Your task to perform on an android device: add a label to a message in the gmail app Image 0: 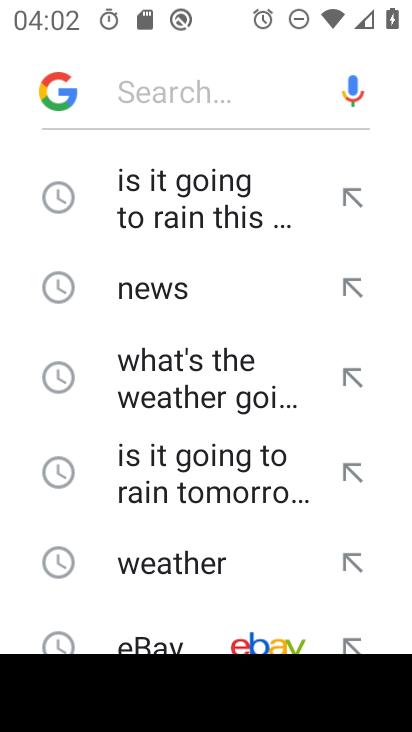
Step 0: press home button
Your task to perform on an android device: add a label to a message in the gmail app Image 1: 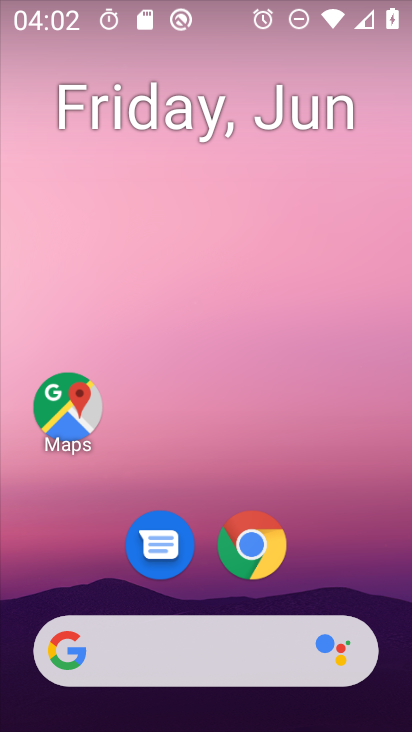
Step 1: drag from (350, 565) to (310, 9)
Your task to perform on an android device: add a label to a message in the gmail app Image 2: 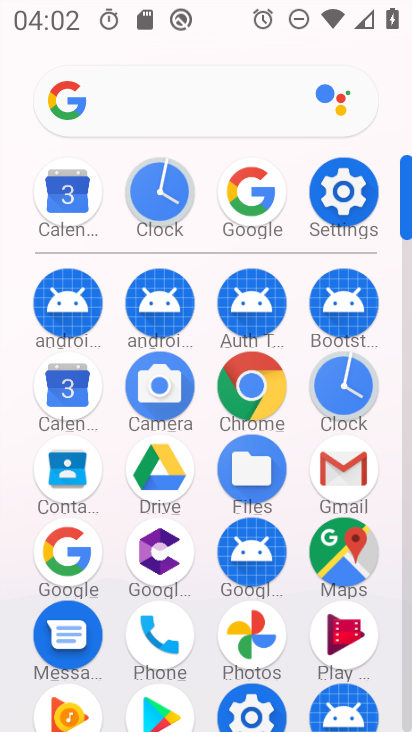
Step 2: click (337, 476)
Your task to perform on an android device: add a label to a message in the gmail app Image 3: 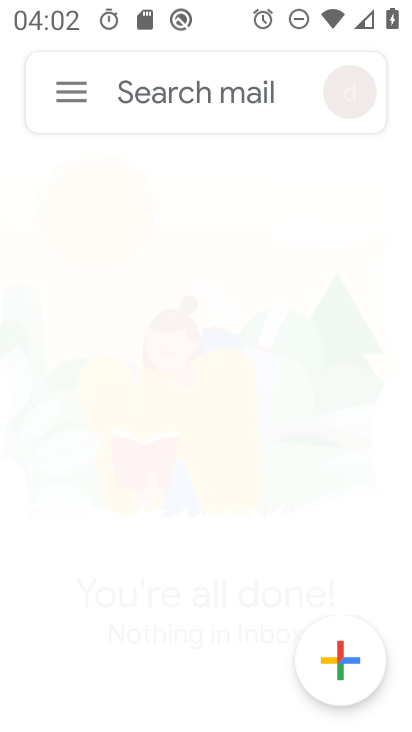
Step 3: click (54, 103)
Your task to perform on an android device: add a label to a message in the gmail app Image 4: 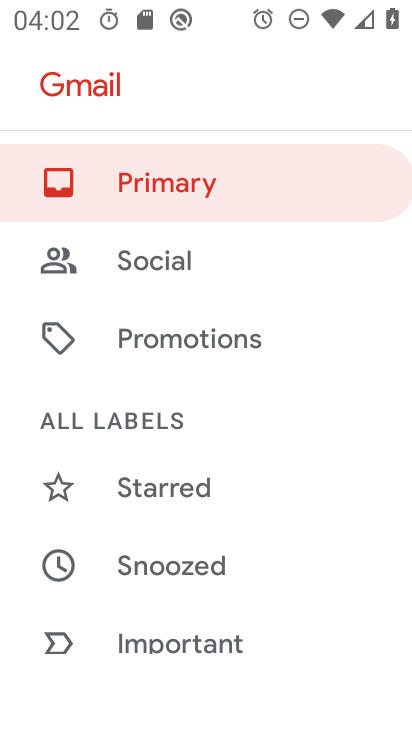
Step 4: drag from (154, 613) to (158, 74)
Your task to perform on an android device: add a label to a message in the gmail app Image 5: 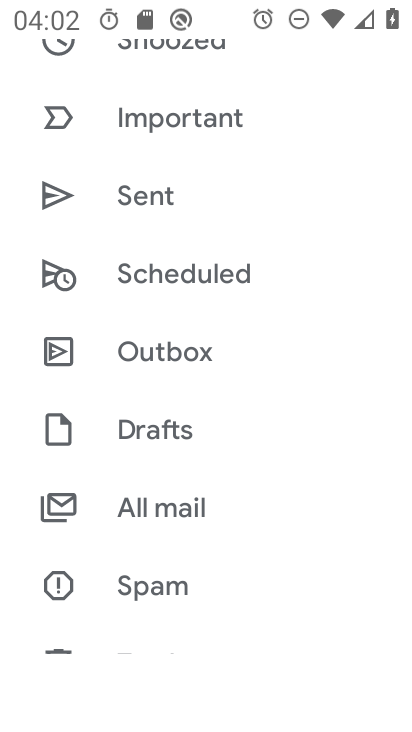
Step 5: click (166, 520)
Your task to perform on an android device: add a label to a message in the gmail app Image 6: 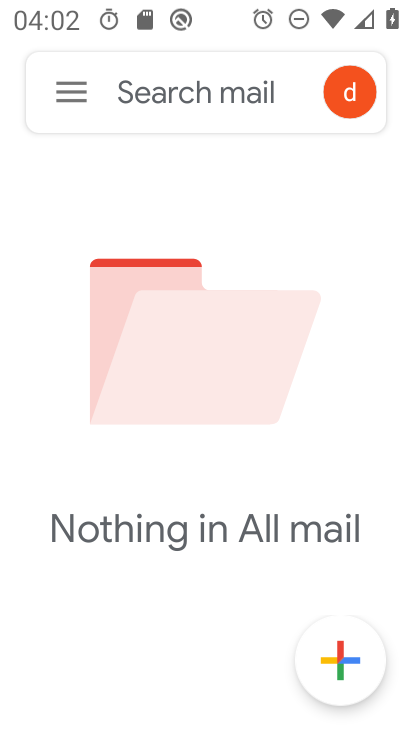
Step 6: task complete